Your task to perform on an android device: turn pop-ups off in chrome Image 0: 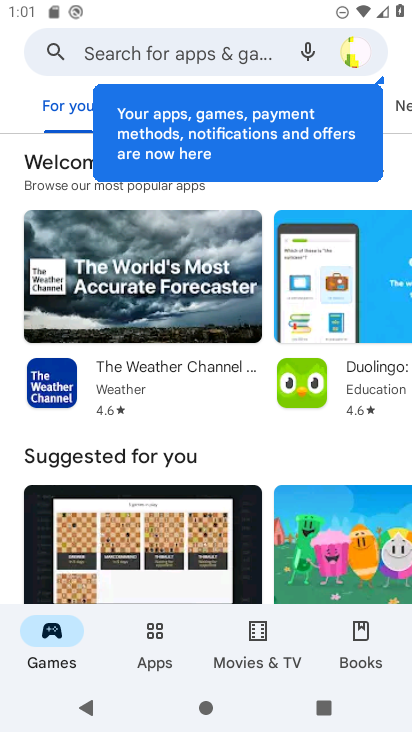
Step 0: press home button
Your task to perform on an android device: turn pop-ups off in chrome Image 1: 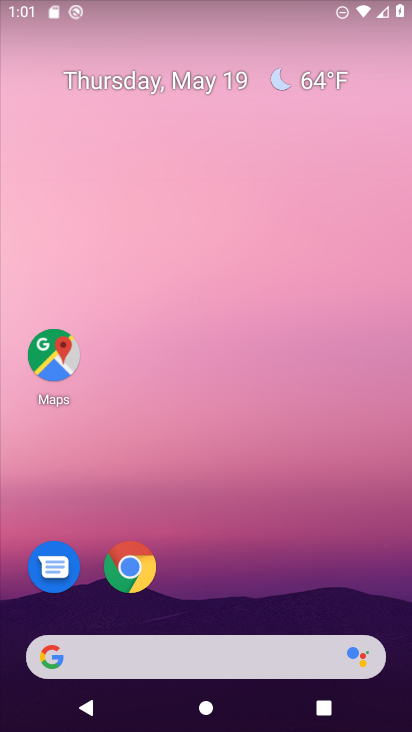
Step 1: click (140, 582)
Your task to perform on an android device: turn pop-ups off in chrome Image 2: 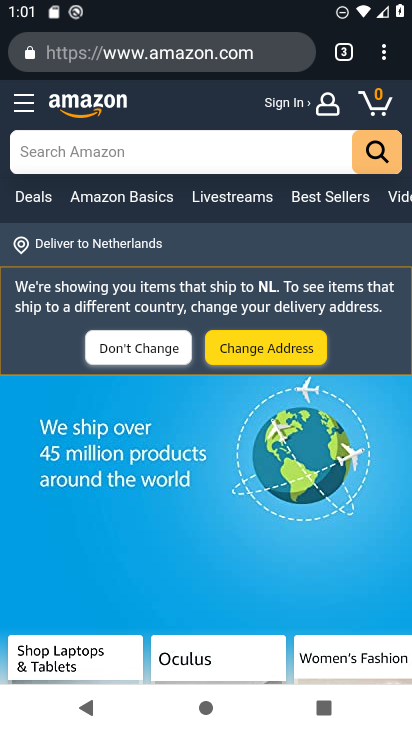
Step 2: drag from (384, 56) to (232, 616)
Your task to perform on an android device: turn pop-ups off in chrome Image 3: 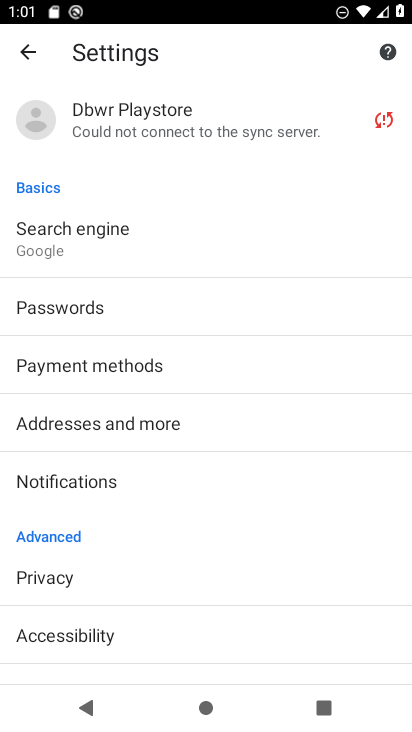
Step 3: drag from (133, 631) to (142, 464)
Your task to perform on an android device: turn pop-ups off in chrome Image 4: 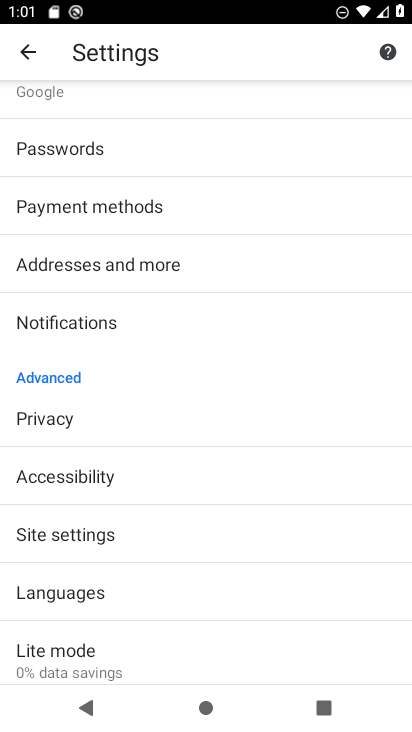
Step 4: click (109, 550)
Your task to perform on an android device: turn pop-ups off in chrome Image 5: 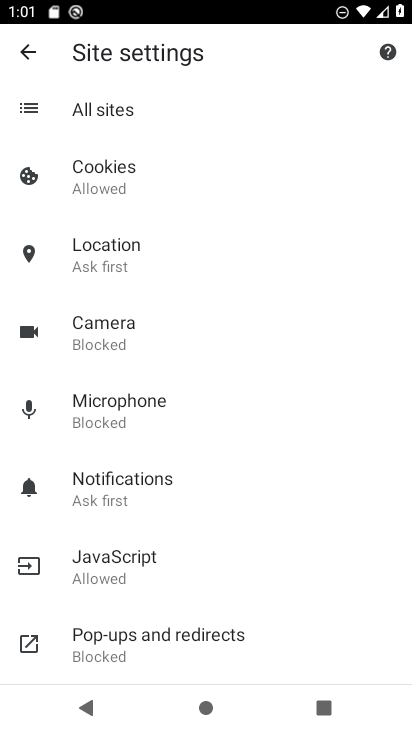
Step 5: click (164, 645)
Your task to perform on an android device: turn pop-ups off in chrome Image 6: 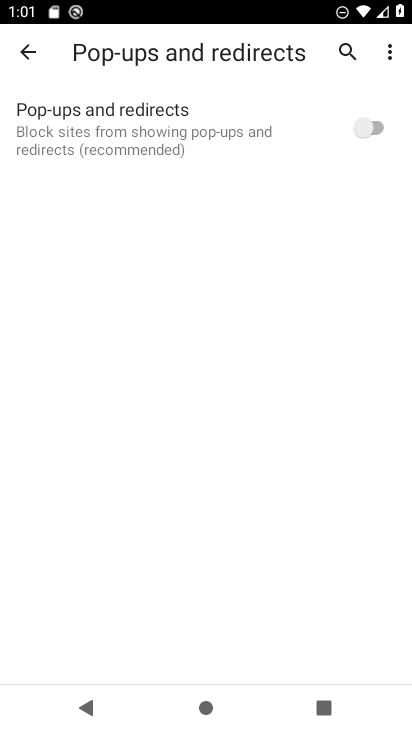
Step 6: task complete